Your task to perform on an android device: read, delete, or share a saved page in the chrome app Image 0: 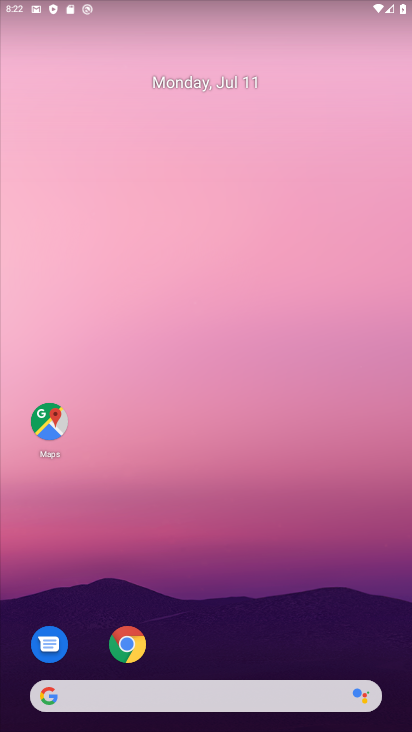
Step 0: drag from (181, 622) to (291, 94)
Your task to perform on an android device: read, delete, or share a saved page in the chrome app Image 1: 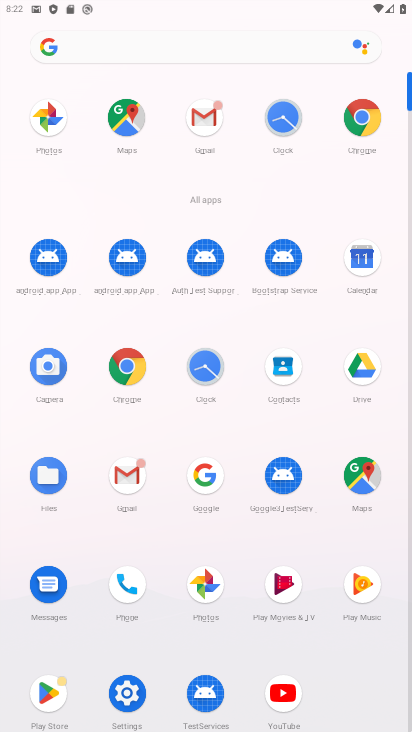
Step 1: click (127, 357)
Your task to perform on an android device: read, delete, or share a saved page in the chrome app Image 2: 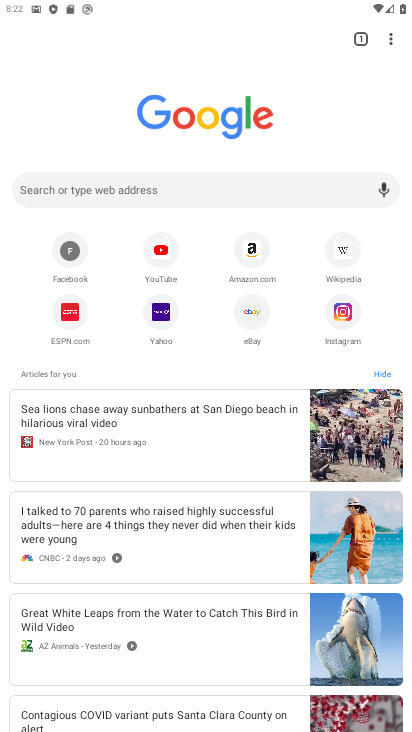
Step 2: drag from (391, 37) to (304, 245)
Your task to perform on an android device: read, delete, or share a saved page in the chrome app Image 3: 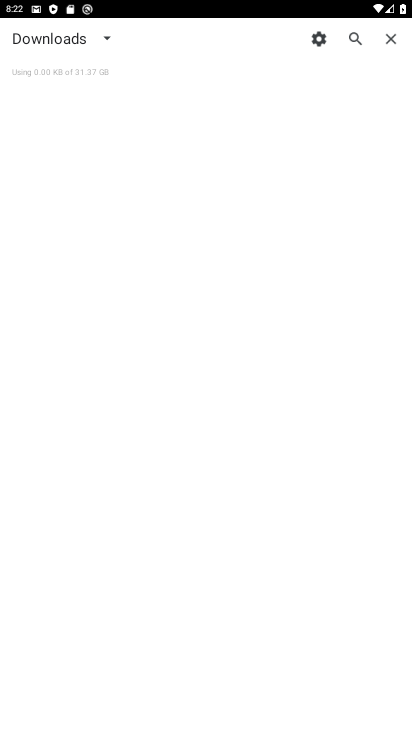
Step 3: click (44, 32)
Your task to perform on an android device: read, delete, or share a saved page in the chrome app Image 4: 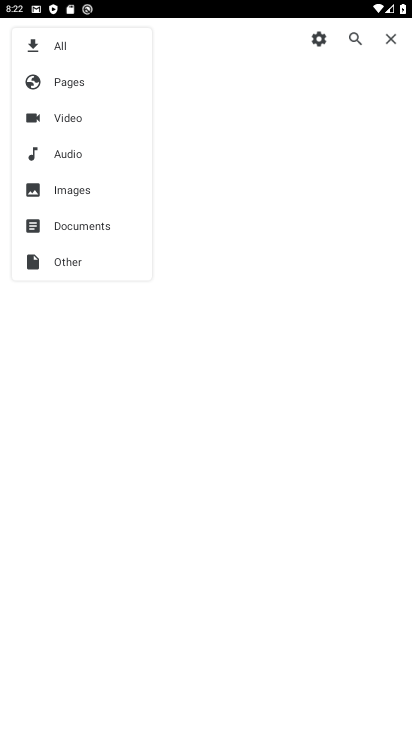
Step 4: click (83, 84)
Your task to perform on an android device: read, delete, or share a saved page in the chrome app Image 5: 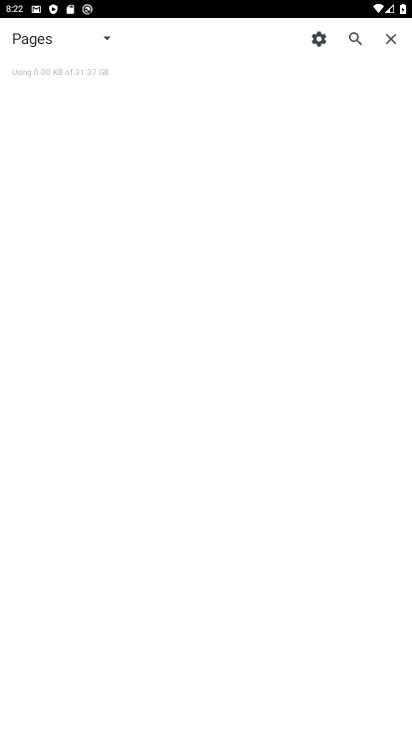
Step 5: task complete